Your task to perform on an android device: change the clock style Image 0: 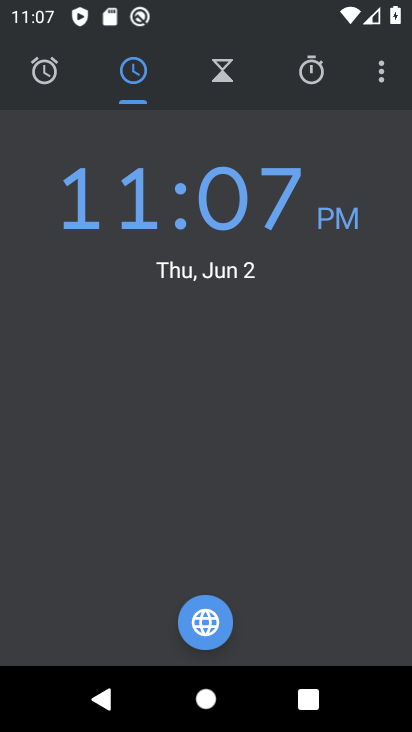
Step 0: press home button
Your task to perform on an android device: change the clock style Image 1: 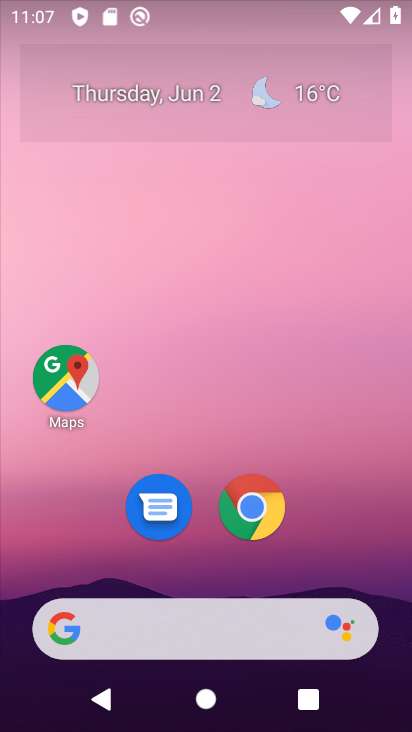
Step 1: drag from (387, 558) to (364, 180)
Your task to perform on an android device: change the clock style Image 2: 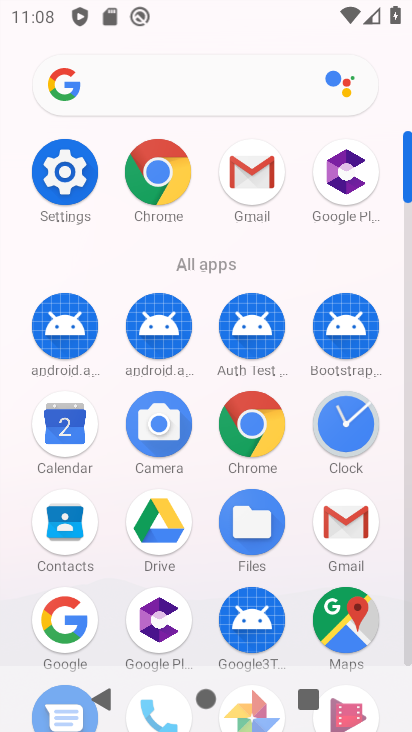
Step 2: click (344, 448)
Your task to perform on an android device: change the clock style Image 3: 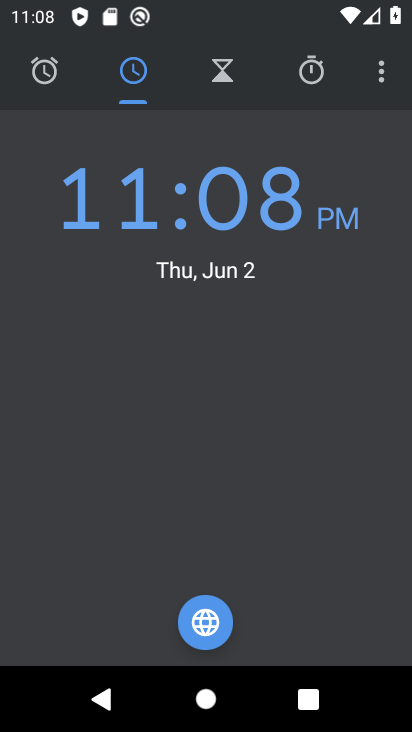
Step 3: drag from (388, 69) to (259, 130)
Your task to perform on an android device: change the clock style Image 4: 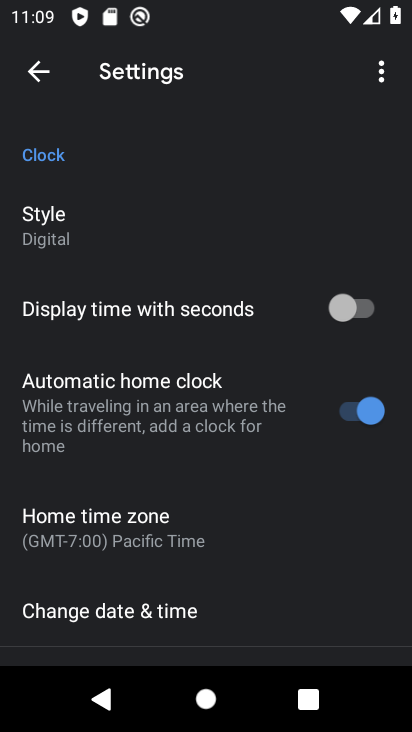
Step 4: click (122, 229)
Your task to perform on an android device: change the clock style Image 5: 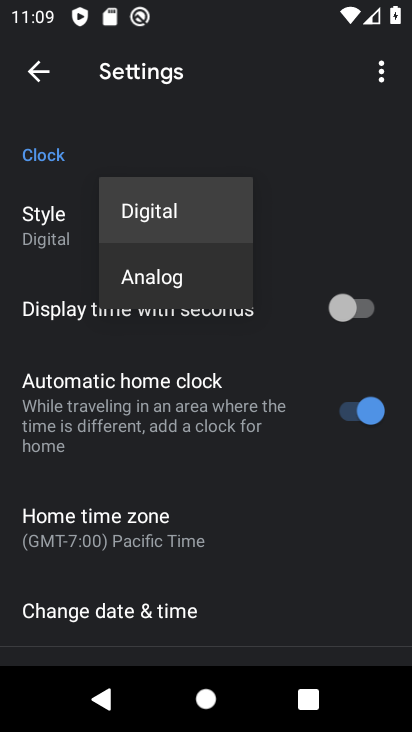
Step 5: click (139, 277)
Your task to perform on an android device: change the clock style Image 6: 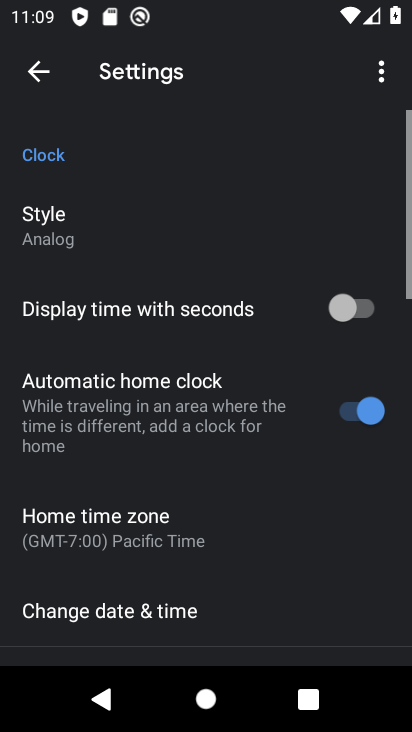
Step 6: task complete